Your task to perform on an android device: turn off improve location accuracy Image 0: 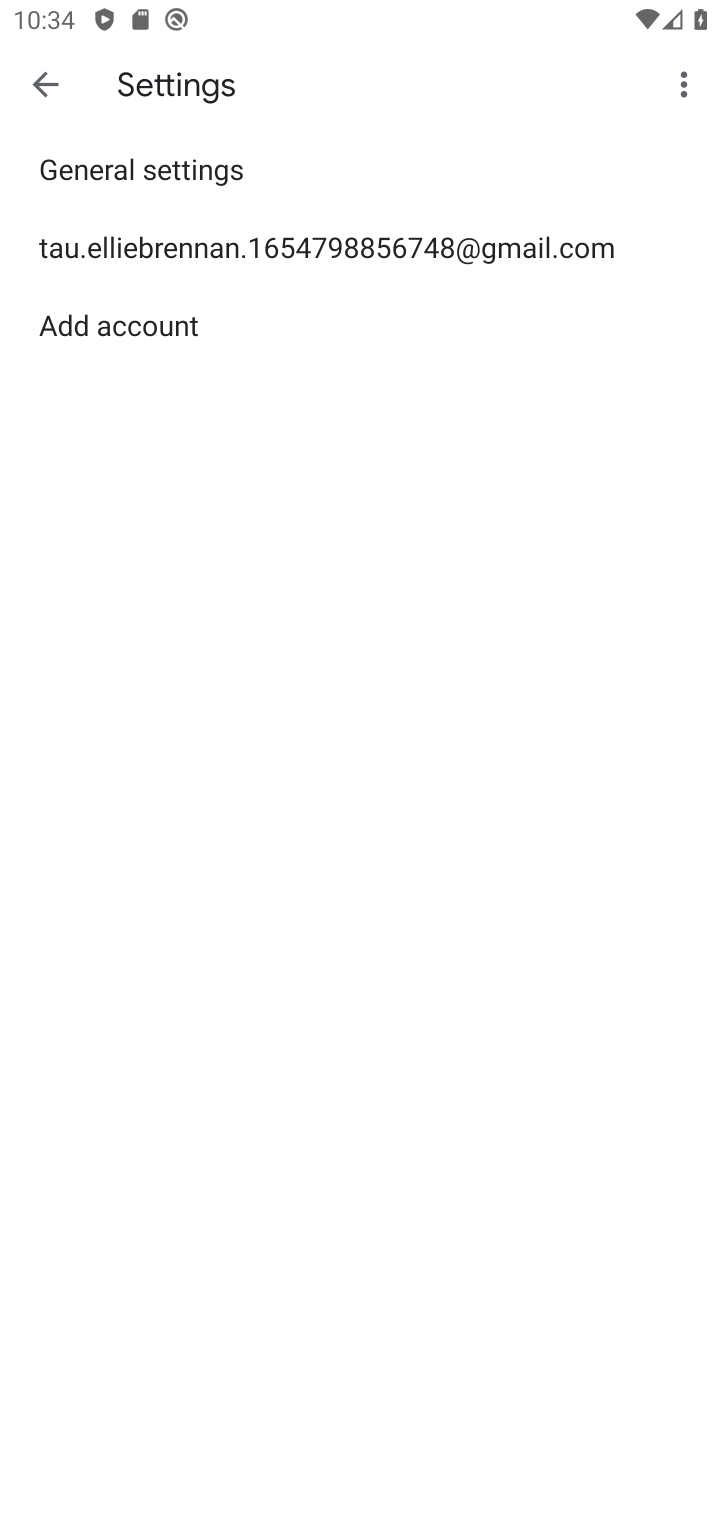
Step 0: press back button
Your task to perform on an android device: turn off improve location accuracy Image 1: 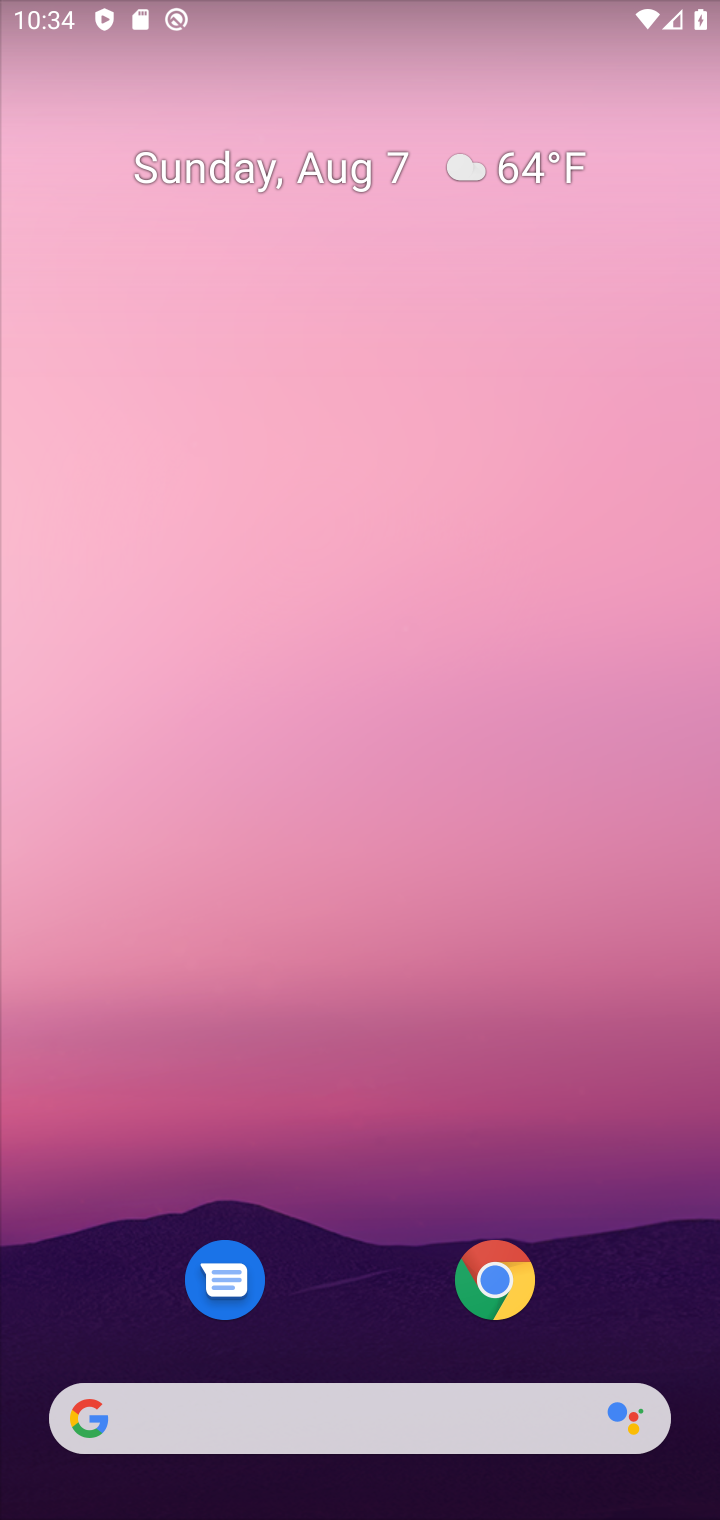
Step 1: drag from (415, 1339) to (446, 62)
Your task to perform on an android device: turn off improve location accuracy Image 2: 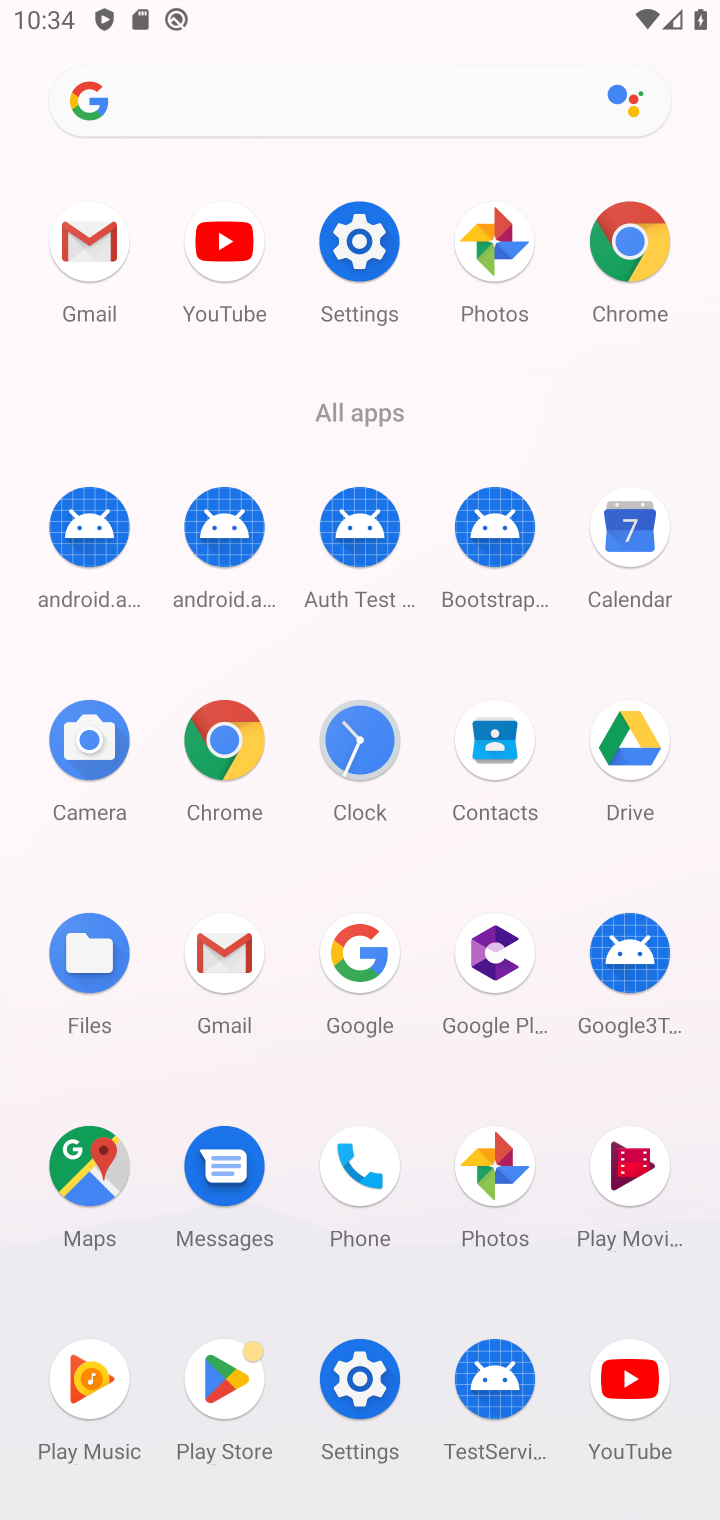
Step 2: click (359, 251)
Your task to perform on an android device: turn off improve location accuracy Image 3: 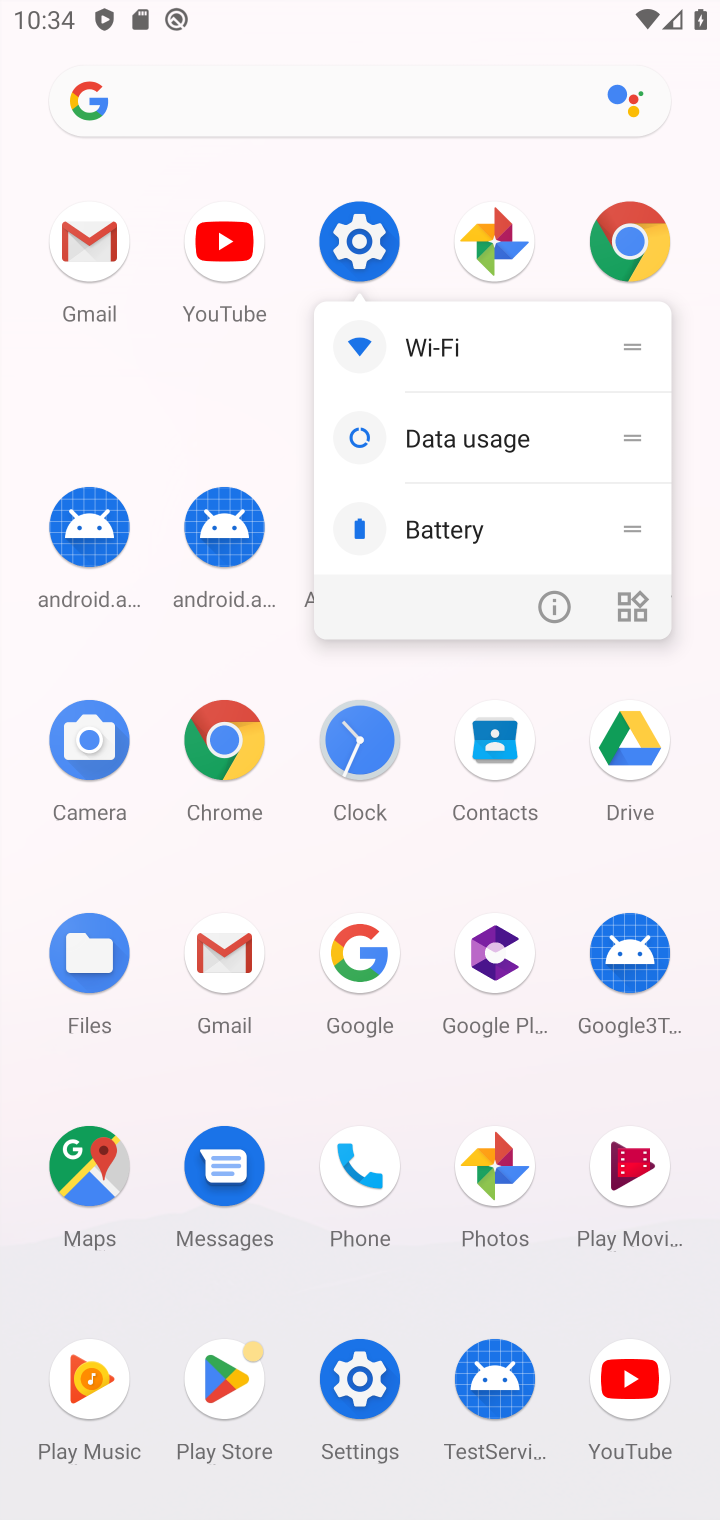
Step 3: click (359, 249)
Your task to perform on an android device: turn off improve location accuracy Image 4: 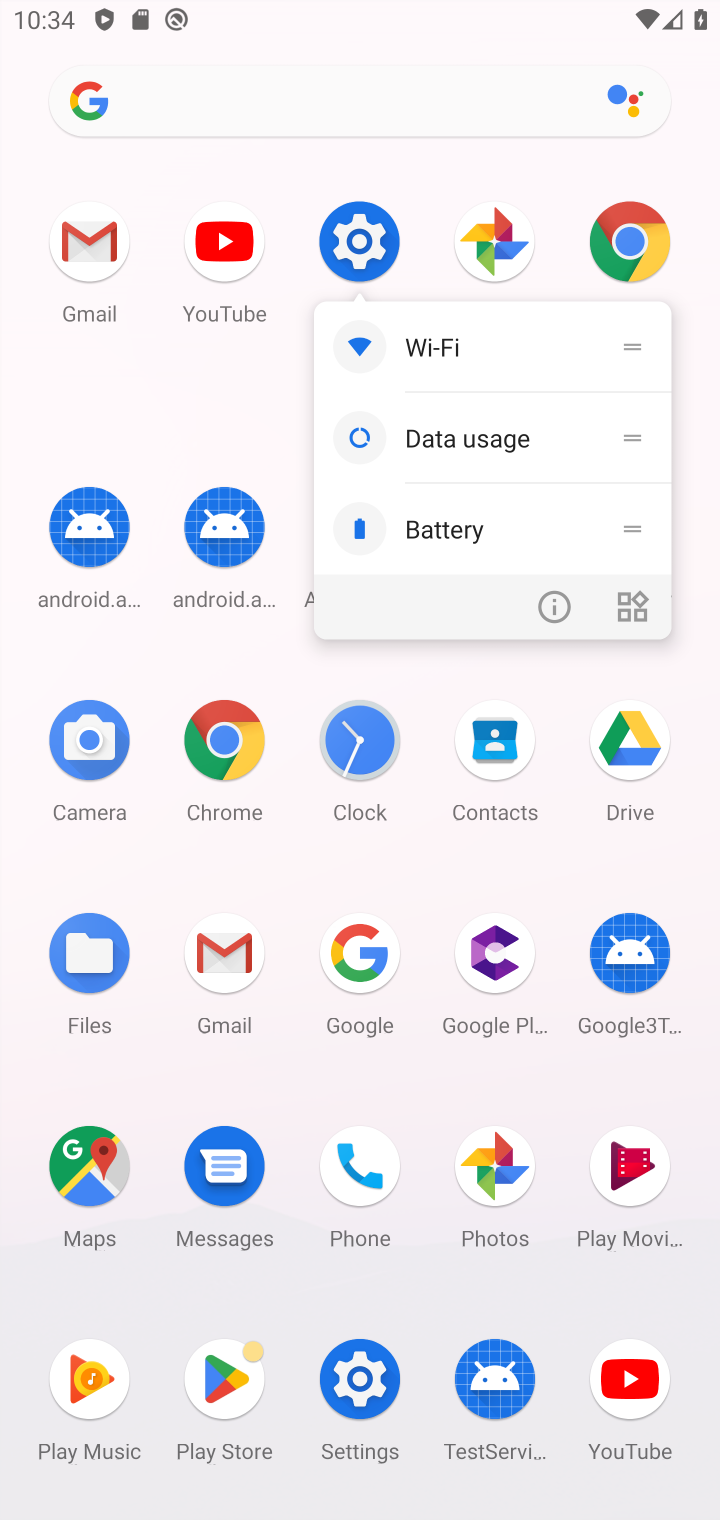
Step 4: click (363, 232)
Your task to perform on an android device: turn off improve location accuracy Image 5: 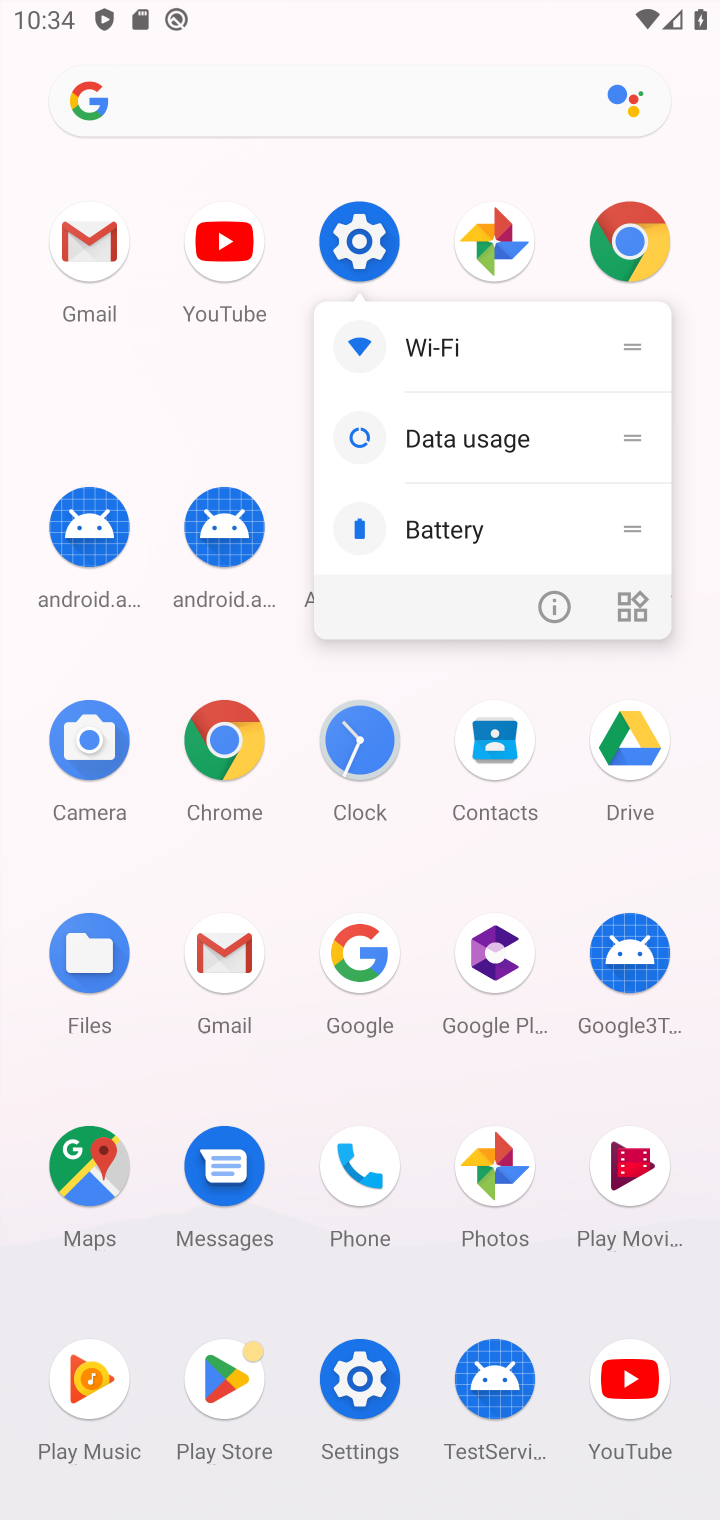
Step 5: click (344, 250)
Your task to perform on an android device: turn off improve location accuracy Image 6: 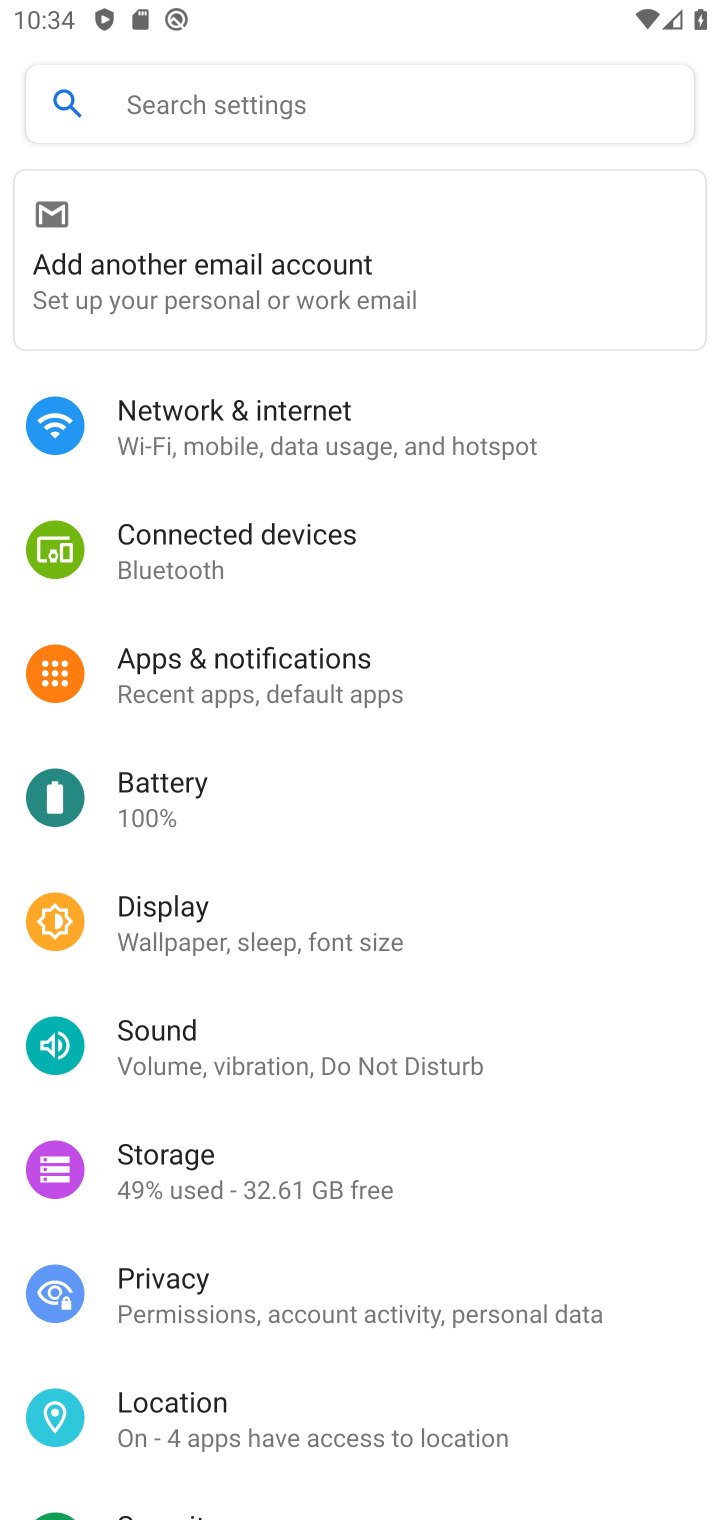
Step 6: drag from (217, 1257) to (367, 170)
Your task to perform on an android device: turn off improve location accuracy Image 7: 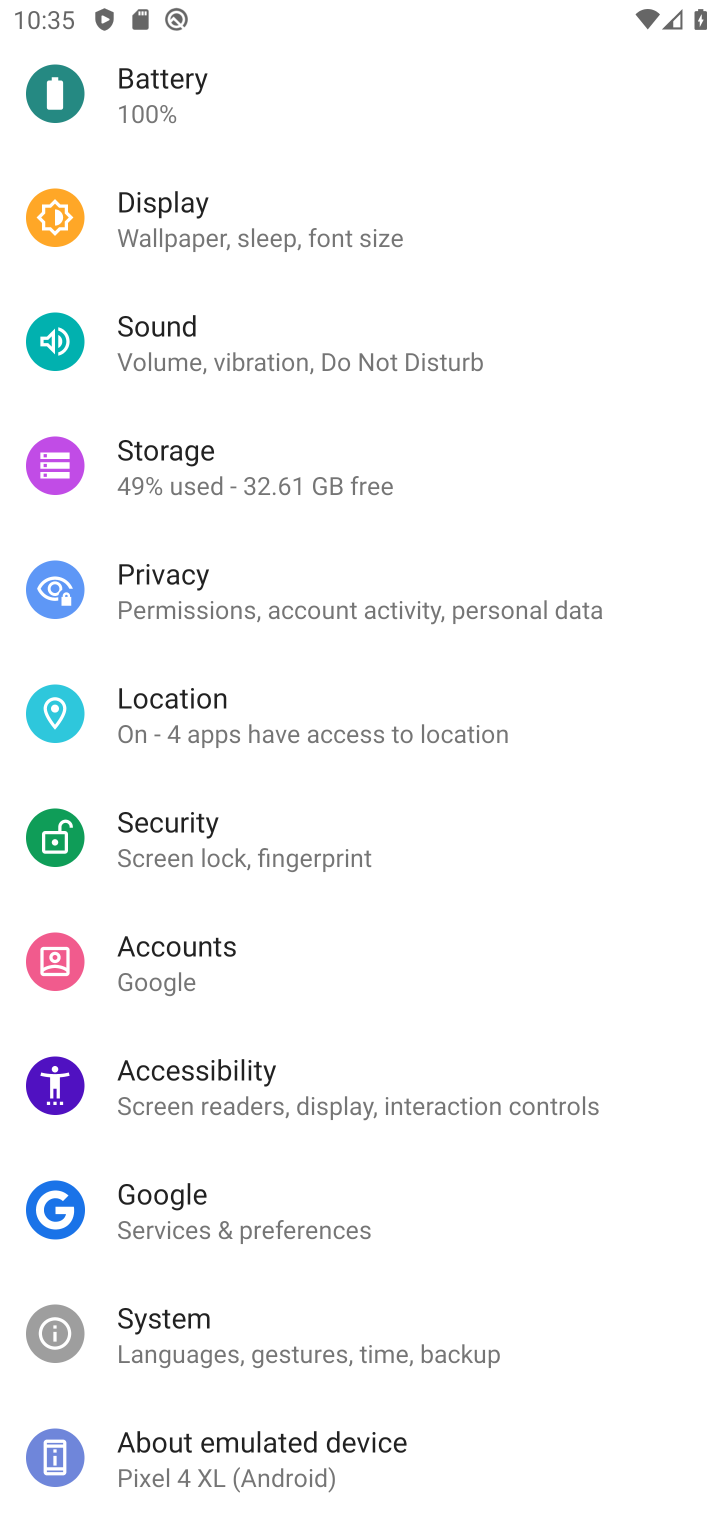
Step 7: click (220, 693)
Your task to perform on an android device: turn off improve location accuracy Image 8: 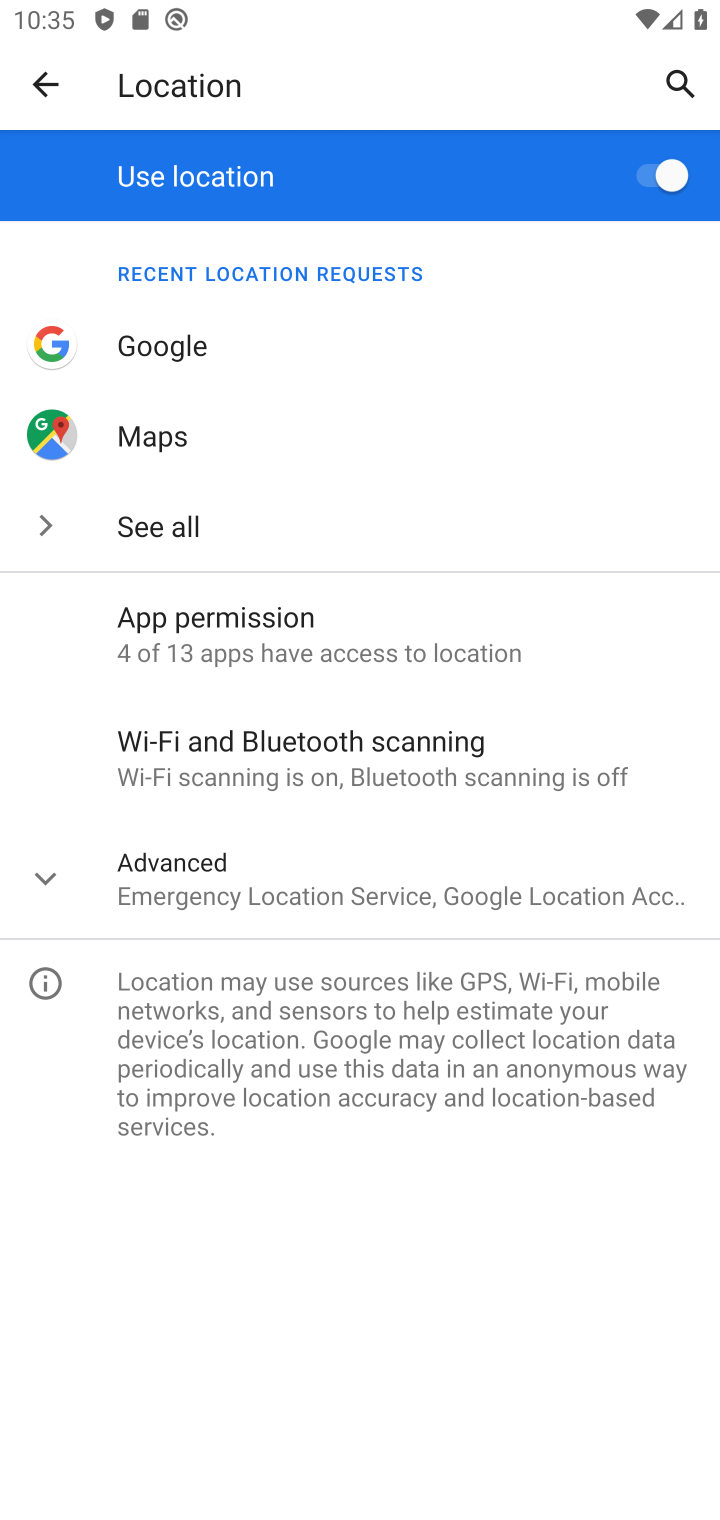
Step 8: click (269, 889)
Your task to perform on an android device: turn off improve location accuracy Image 9: 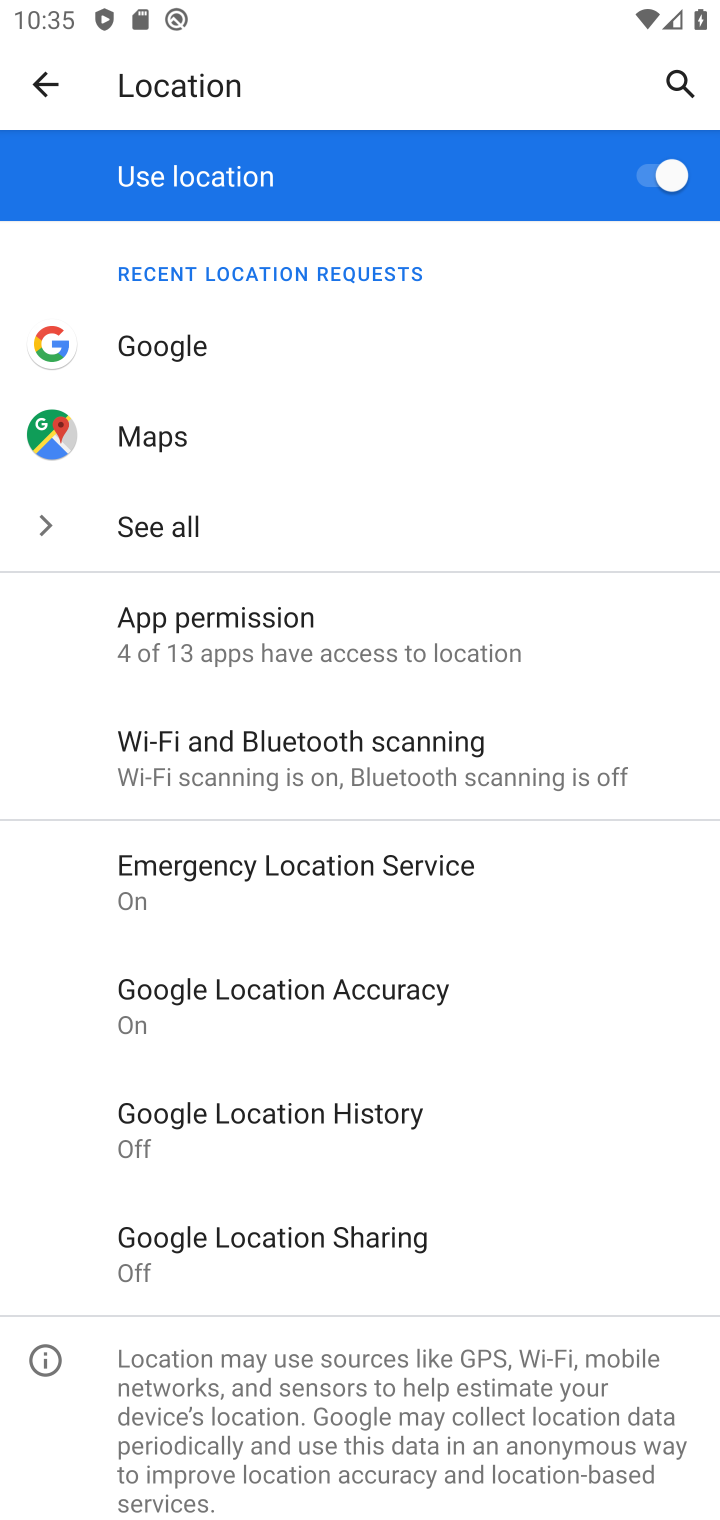
Step 9: click (254, 1003)
Your task to perform on an android device: turn off improve location accuracy Image 10: 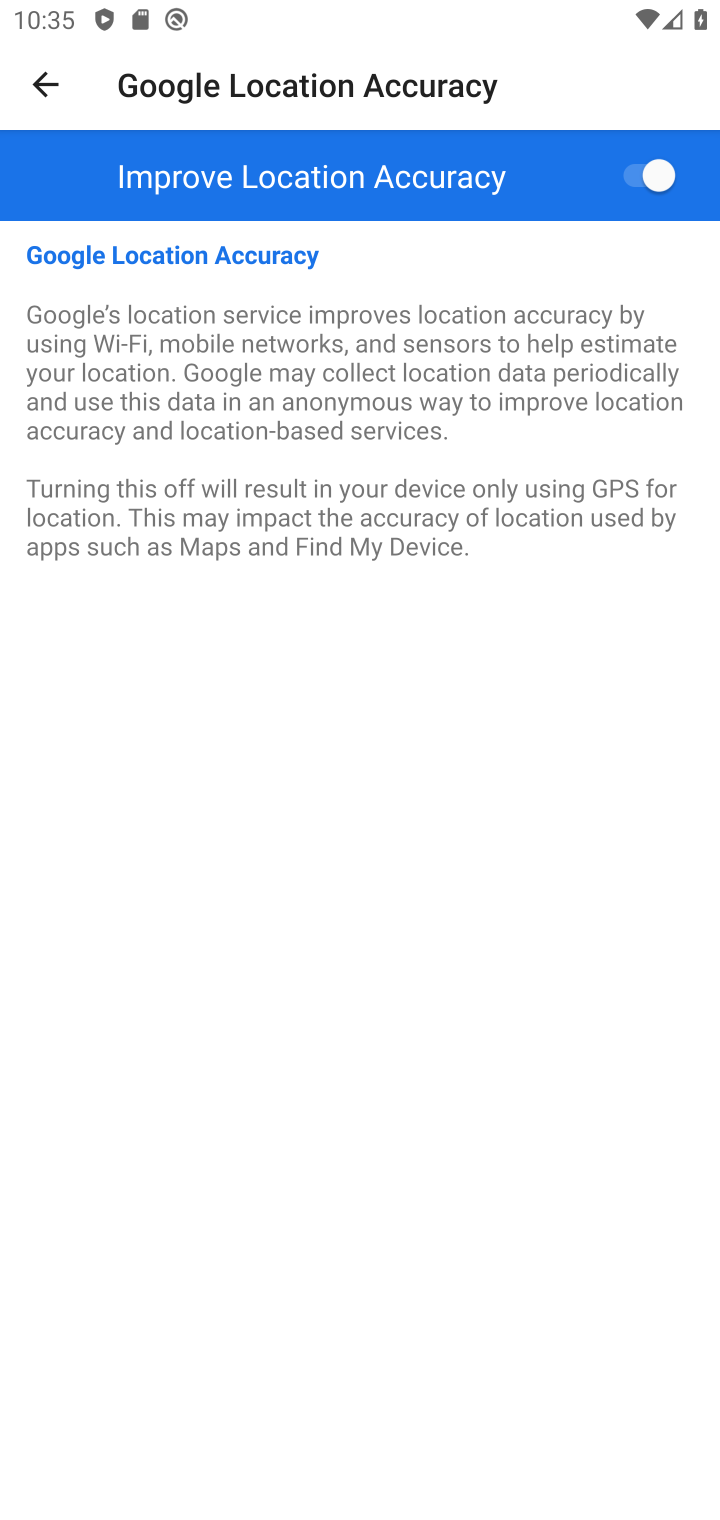
Step 10: click (638, 178)
Your task to perform on an android device: turn off improve location accuracy Image 11: 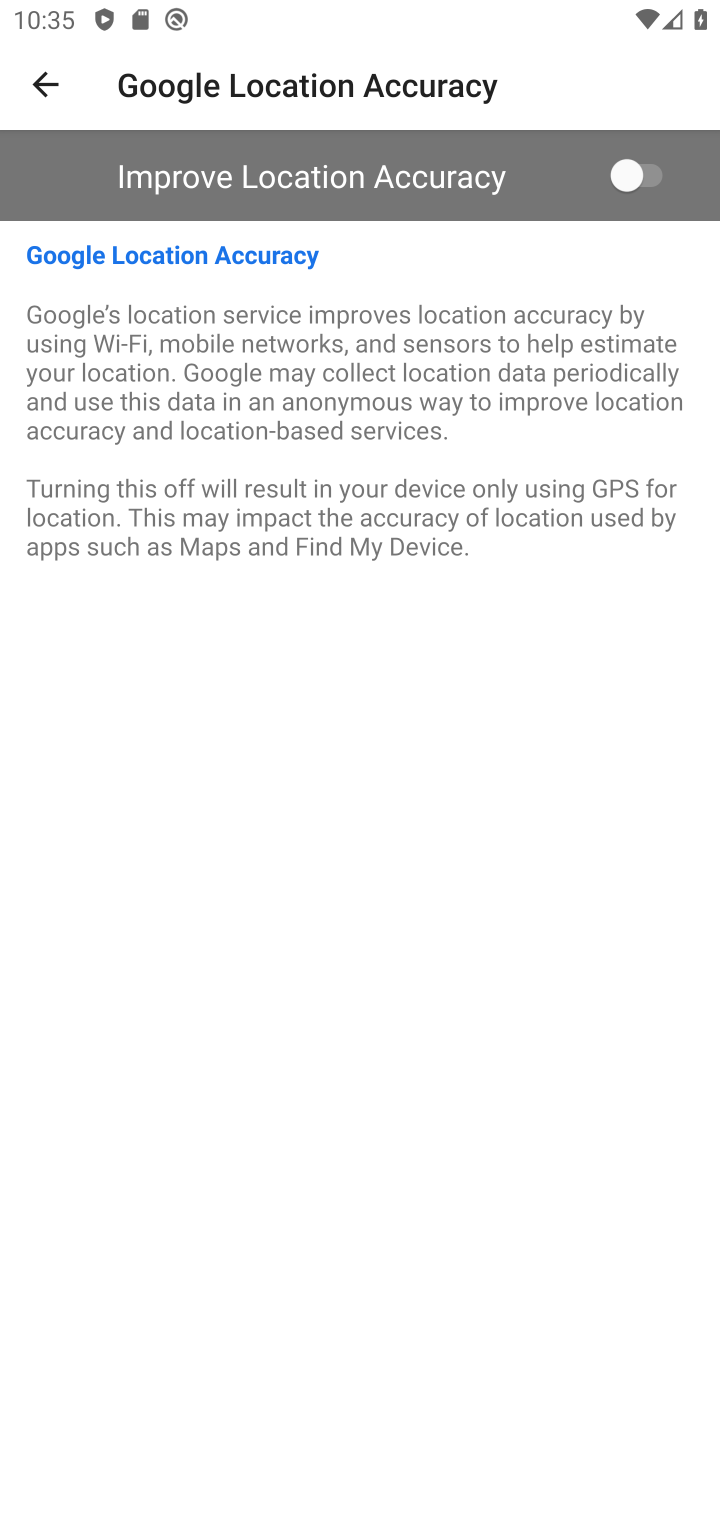
Step 11: task complete